Your task to perform on an android device: delete browsing data in the chrome app Image 0: 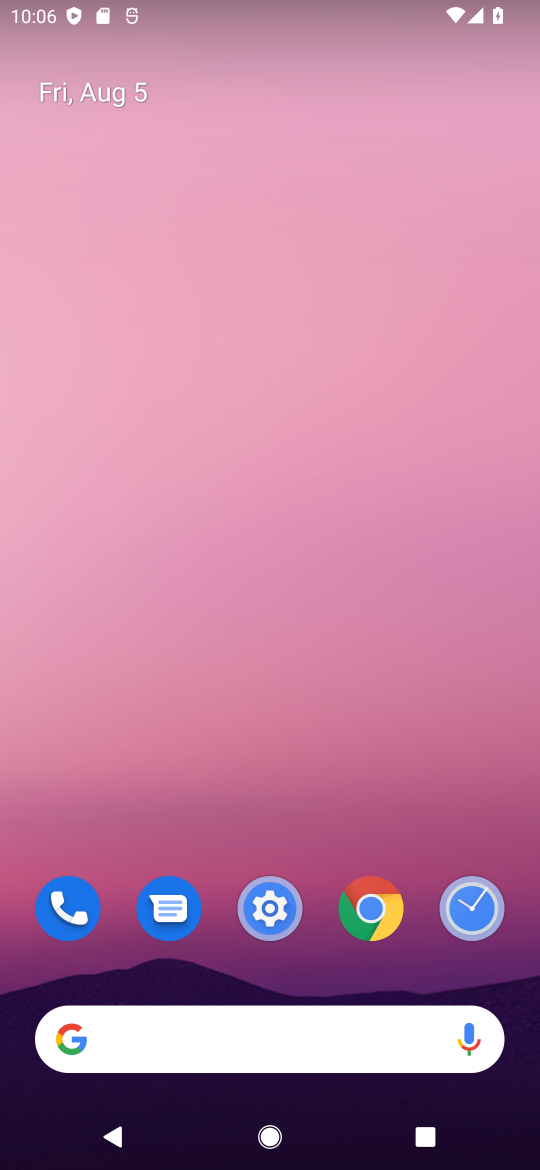
Step 0: task complete